Your task to perform on an android device: toggle javascript in the chrome app Image 0: 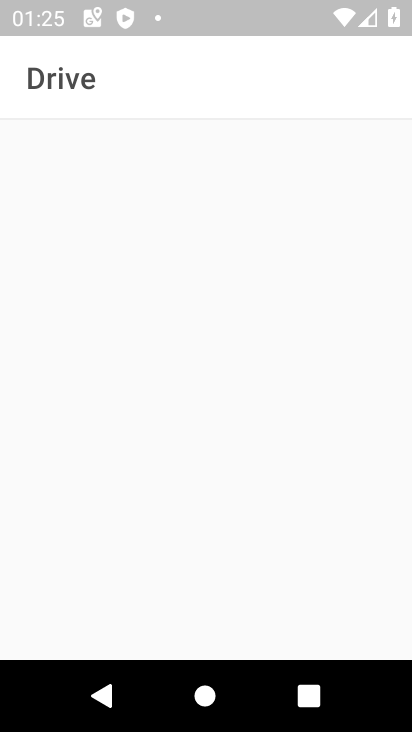
Step 0: press home button
Your task to perform on an android device: toggle javascript in the chrome app Image 1: 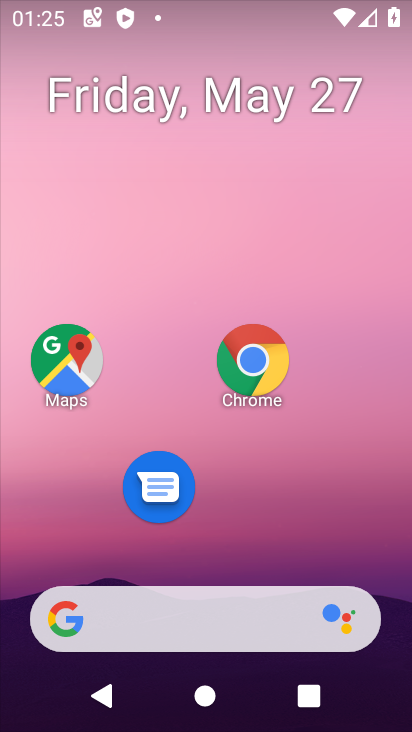
Step 1: click (255, 357)
Your task to perform on an android device: toggle javascript in the chrome app Image 2: 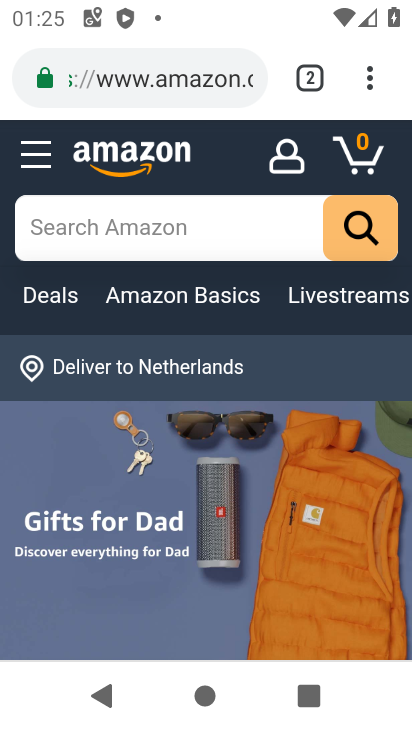
Step 2: click (361, 69)
Your task to perform on an android device: toggle javascript in the chrome app Image 3: 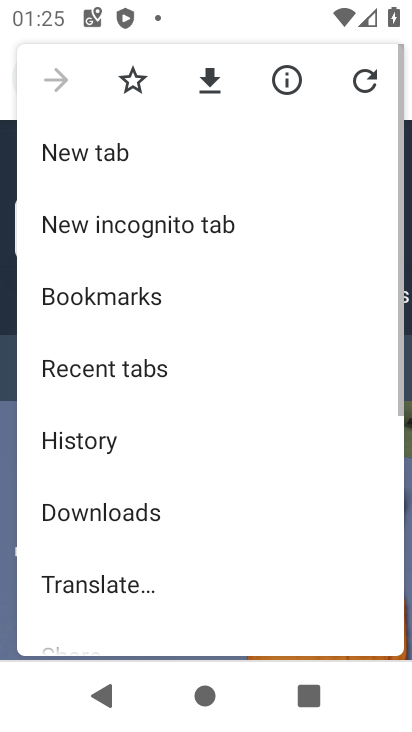
Step 3: drag from (211, 521) to (193, 70)
Your task to perform on an android device: toggle javascript in the chrome app Image 4: 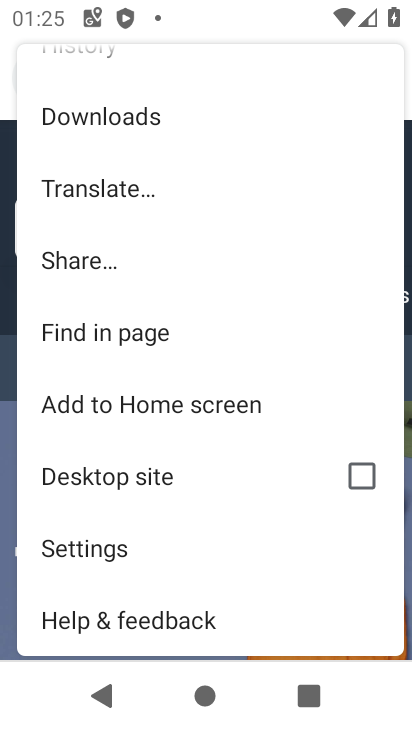
Step 4: click (118, 548)
Your task to perform on an android device: toggle javascript in the chrome app Image 5: 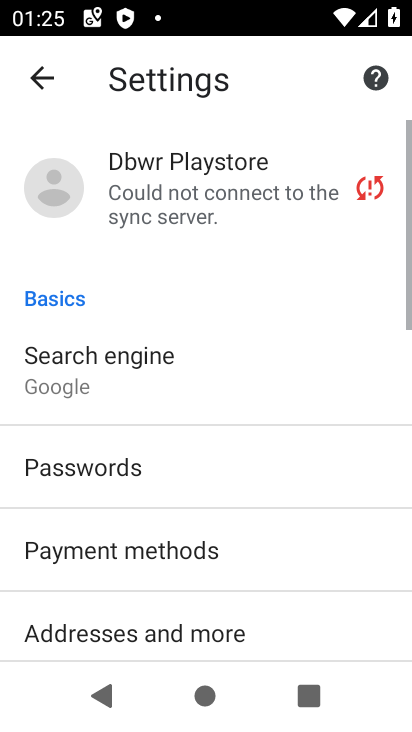
Step 5: drag from (230, 564) to (287, 89)
Your task to perform on an android device: toggle javascript in the chrome app Image 6: 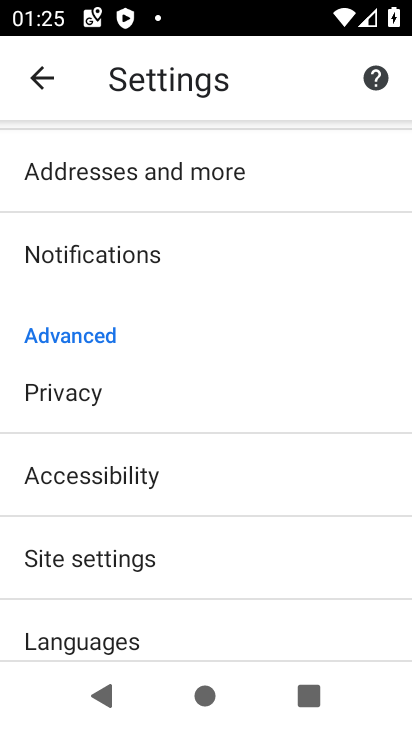
Step 6: click (137, 556)
Your task to perform on an android device: toggle javascript in the chrome app Image 7: 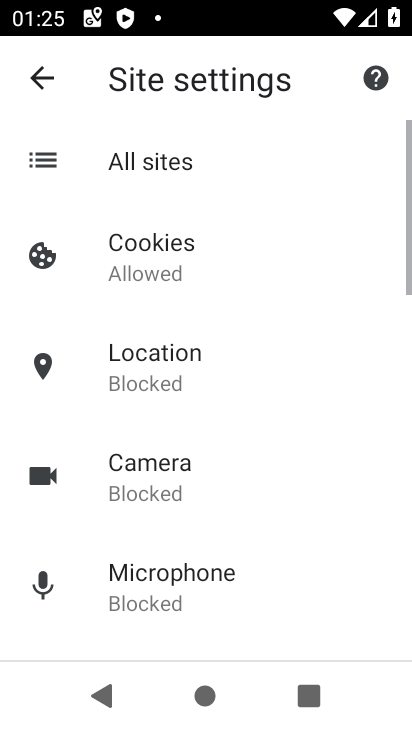
Step 7: drag from (277, 543) to (266, 217)
Your task to perform on an android device: toggle javascript in the chrome app Image 8: 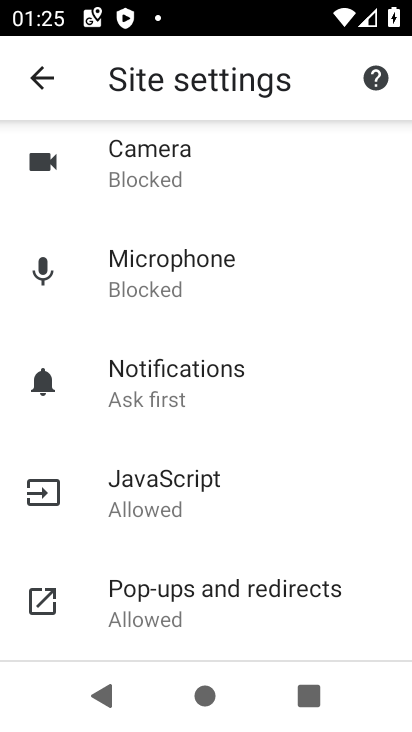
Step 8: click (160, 517)
Your task to perform on an android device: toggle javascript in the chrome app Image 9: 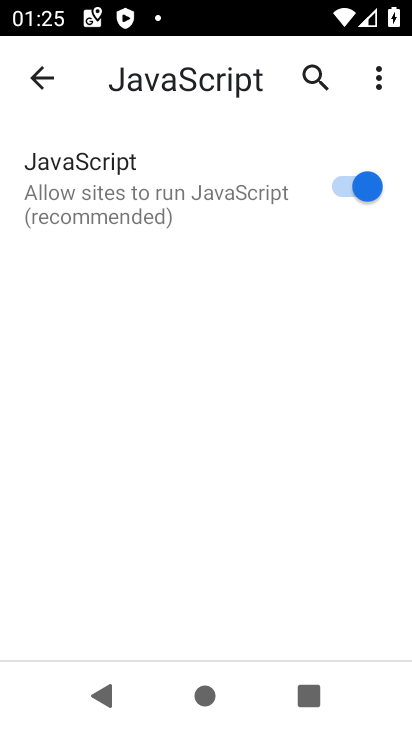
Step 9: click (346, 186)
Your task to perform on an android device: toggle javascript in the chrome app Image 10: 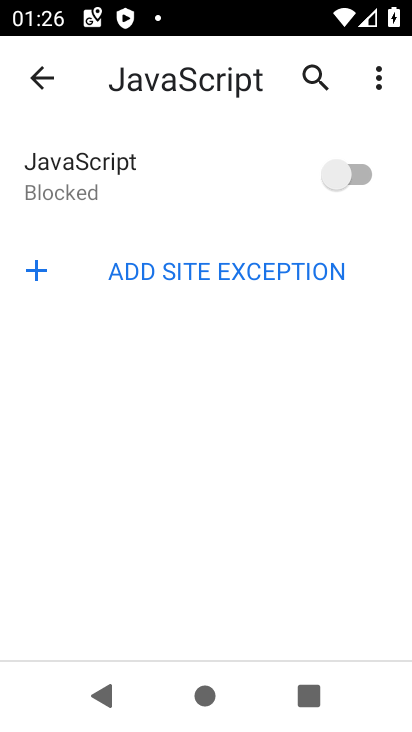
Step 10: task complete